Your task to perform on an android device: Go to ESPN.com Image 0: 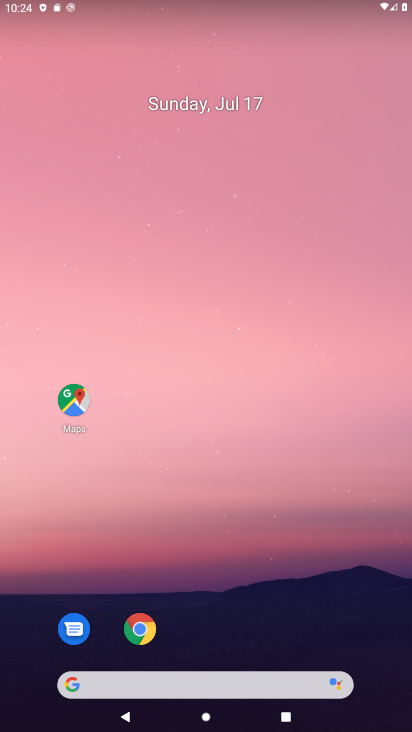
Step 0: drag from (205, 647) to (158, 30)
Your task to perform on an android device: Go to ESPN.com Image 1: 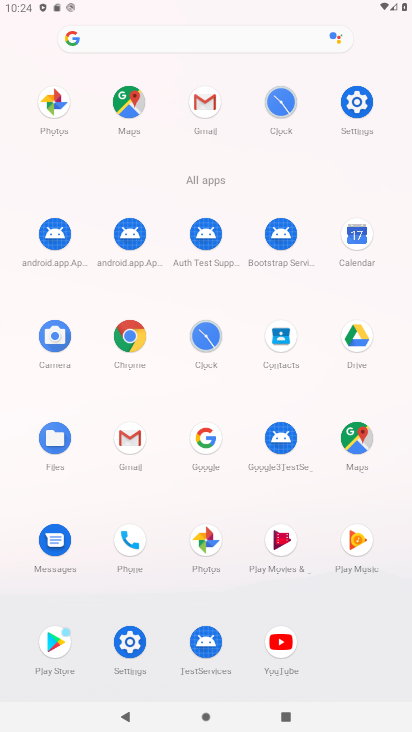
Step 1: click (123, 353)
Your task to perform on an android device: Go to ESPN.com Image 2: 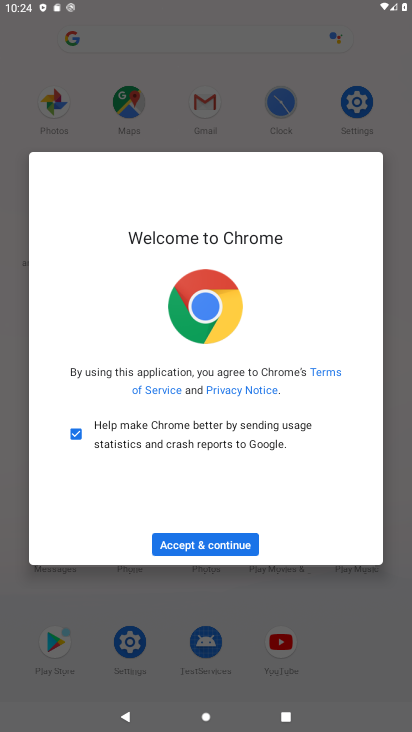
Step 2: click (236, 541)
Your task to perform on an android device: Go to ESPN.com Image 3: 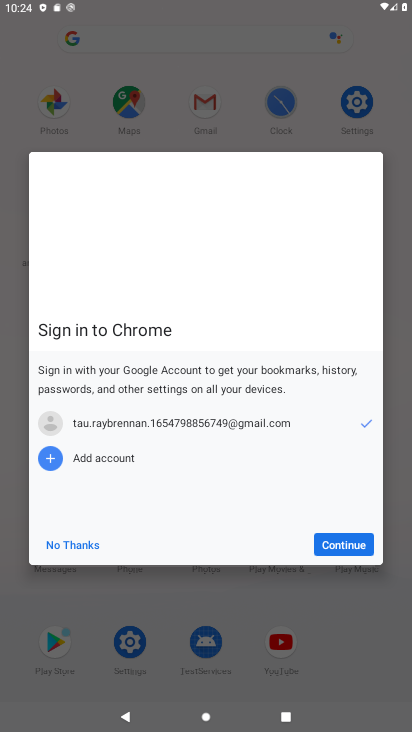
Step 3: click (339, 543)
Your task to perform on an android device: Go to ESPN.com Image 4: 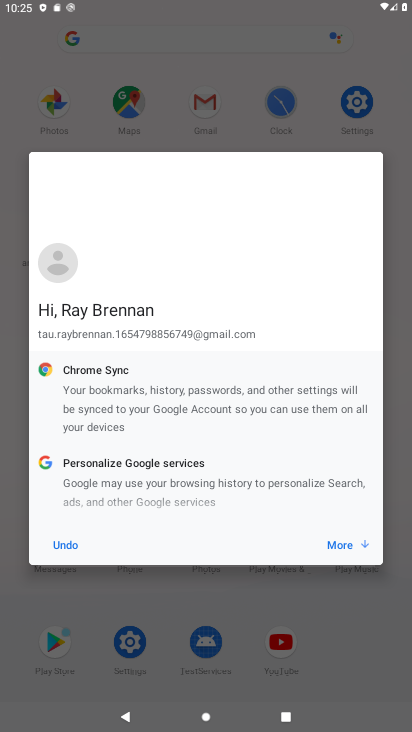
Step 4: click (355, 545)
Your task to perform on an android device: Go to ESPN.com Image 5: 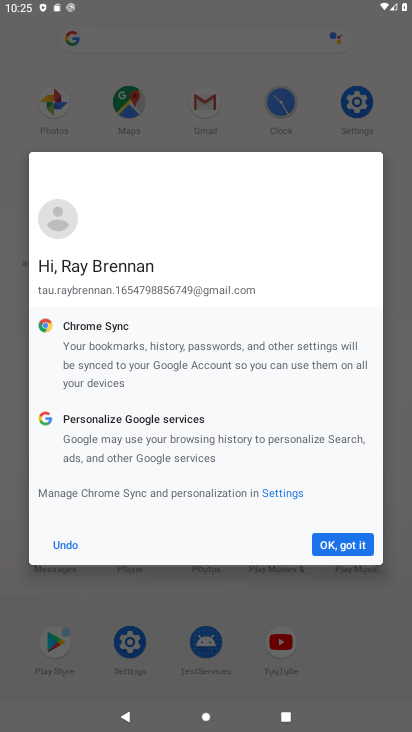
Step 5: click (343, 539)
Your task to perform on an android device: Go to ESPN.com Image 6: 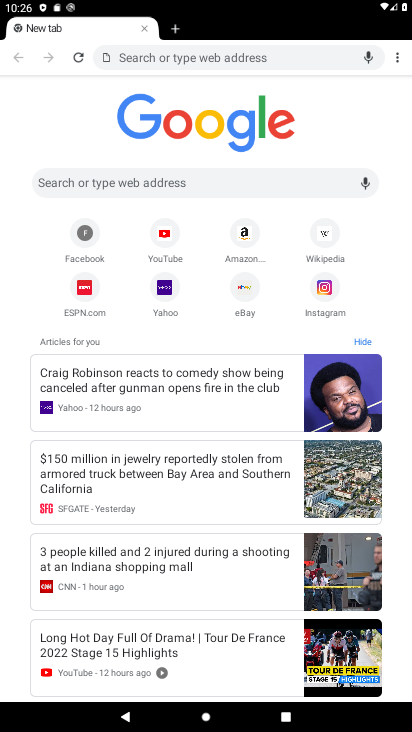
Step 6: click (81, 295)
Your task to perform on an android device: Go to ESPN.com Image 7: 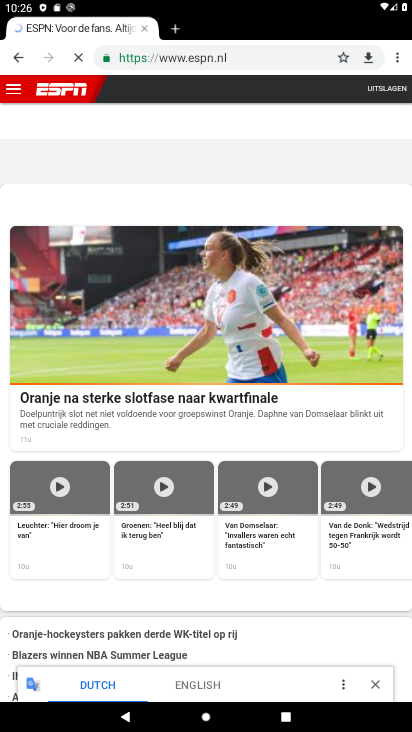
Step 7: task complete